Your task to perform on an android device: Go to wifi settings Image 0: 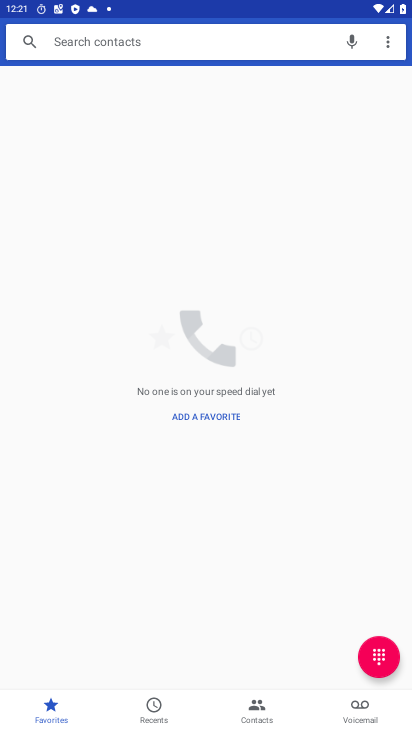
Step 0: press home button
Your task to perform on an android device: Go to wifi settings Image 1: 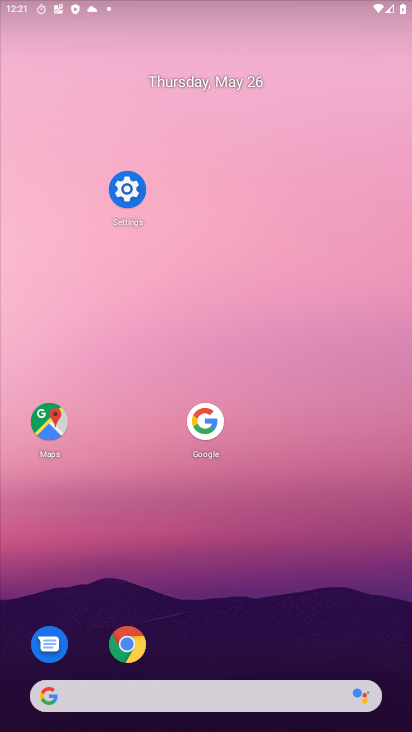
Step 1: drag from (208, 573) to (248, 37)
Your task to perform on an android device: Go to wifi settings Image 2: 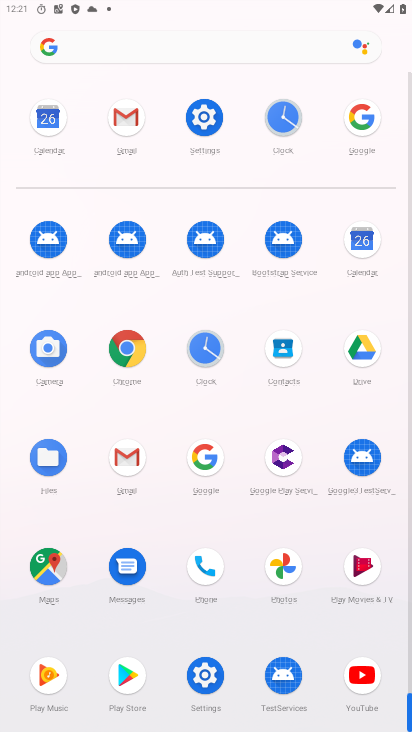
Step 2: click (212, 106)
Your task to perform on an android device: Go to wifi settings Image 3: 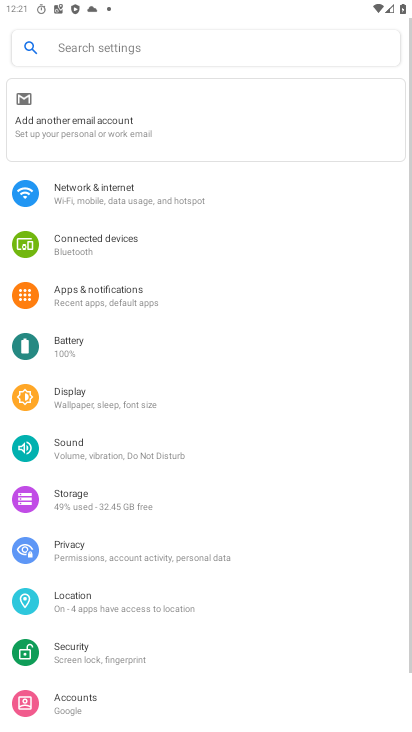
Step 3: click (115, 196)
Your task to perform on an android device: Go to wifi settings Image 4: 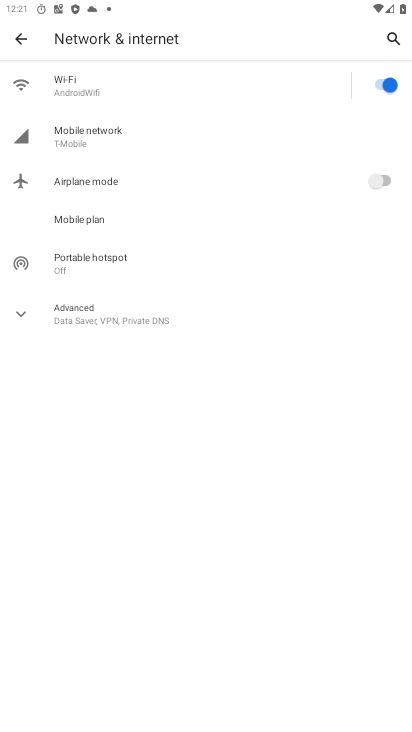
Step 4: click (122, 96)
Your task to perform on an android device: Go to wifi settings Image 5: 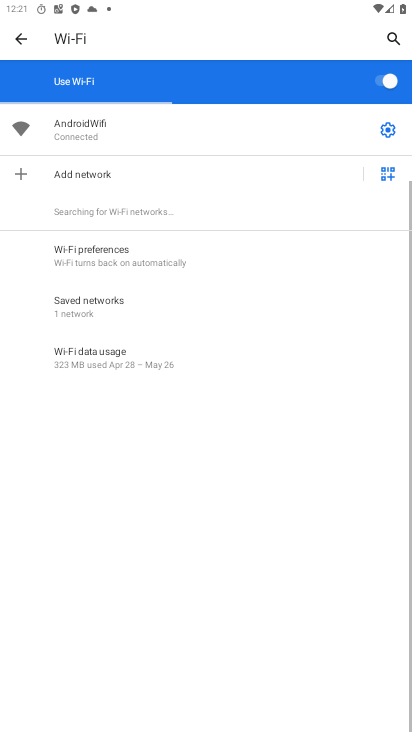
Step 5: click (137, 142)
Your task to perform on an android device: Go to wifi settings Image 6: 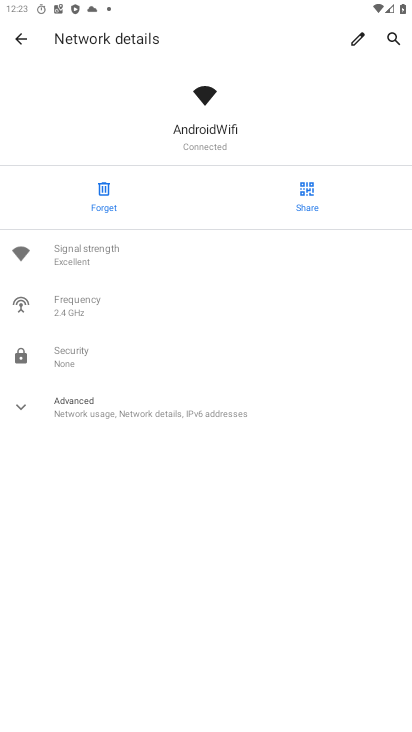
Step 6: task complete